Your task to perform on an android device: allow cookies in the chrome app Image 0: 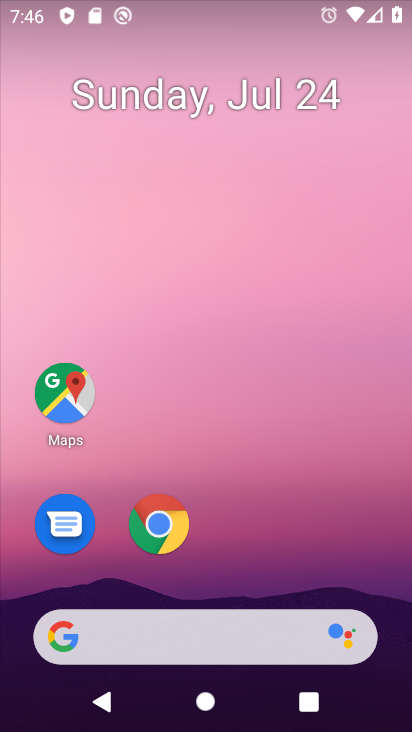
Step 0: click (157, 522)
Your task to perform on an android device: allow cookies in the chrome app Image 1: 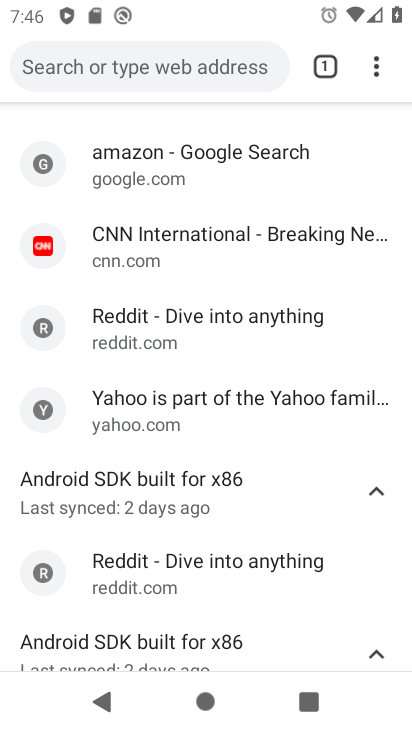
Step 1: drag from (235, 193) to (230, 572)
Your task to perform on an android device: allow cookies in the chrome app Image 2: 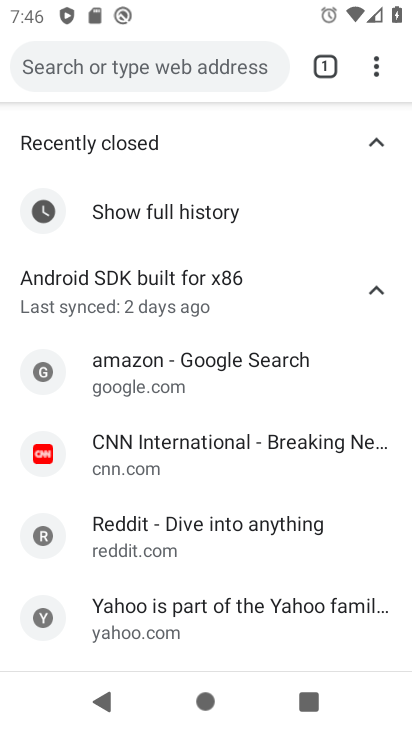
Step 2: click (375, 72)
Your task to perform on an android device: allow cookies in the chrome app Image 3: 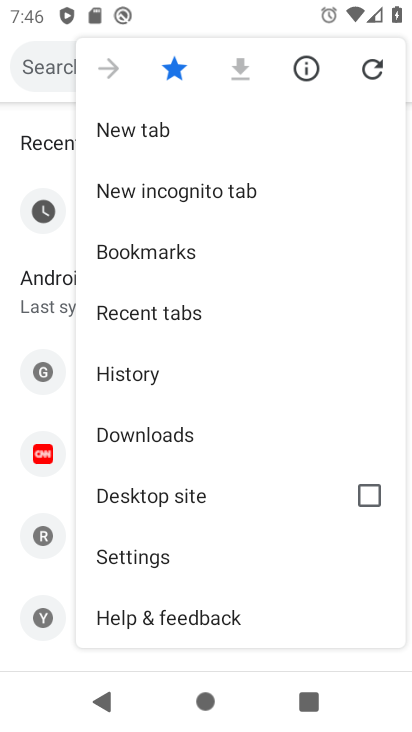
Step 3: drag from (252, 503) to (267, 268)
Your task to perform on an android device: allow cookies in the chrome app Image 4: 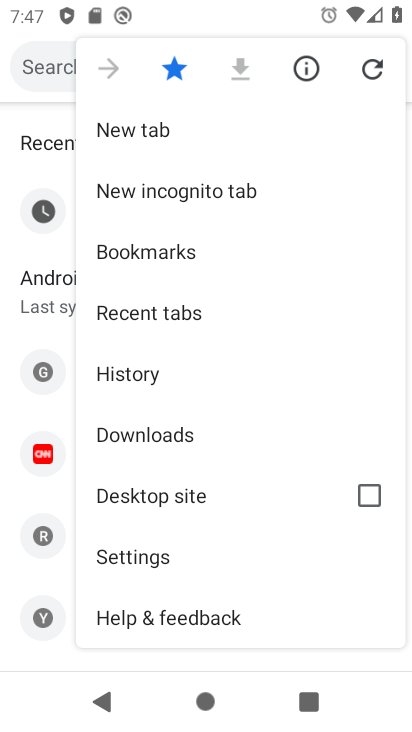
Step 4: click (148, 549)
Your task to perform on an android device: allow cookies in the chrome app Image 5: 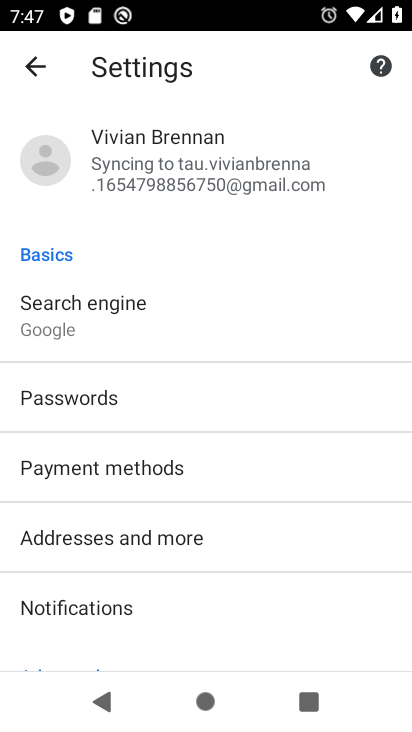
Step 5: drag from (221, 494) to (284, 167)
Your task to perform on an android device: allow cookies in the chrome app Image 6: 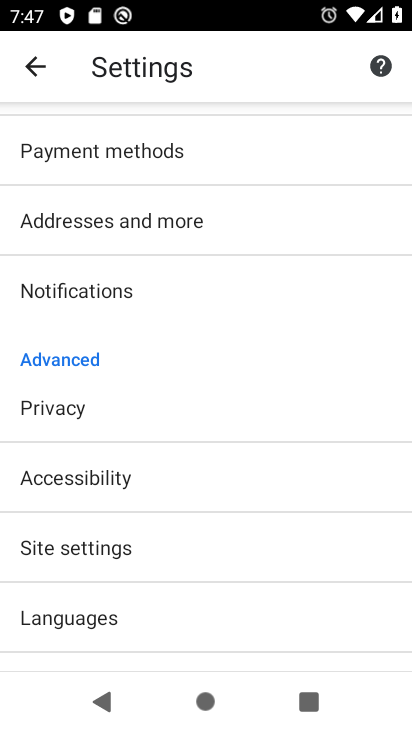
Step 6: click (104, 544)
Your task to perform on an android device: allow cookies in the chrome app Image 7: 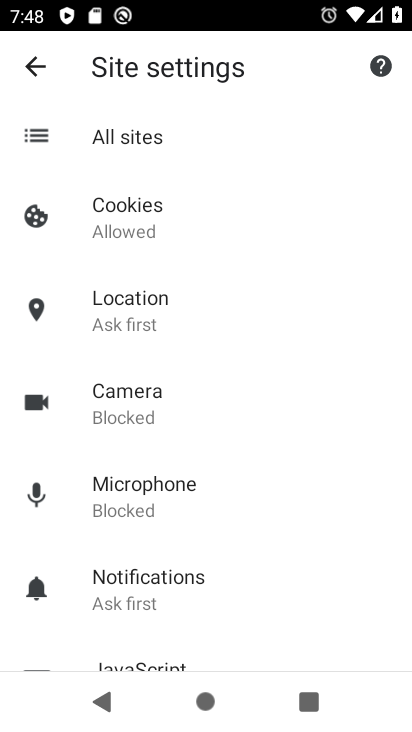
Step 7: click (193, 202)
Your task to perform on an android device: allow cookies in the chrome app Image 8: 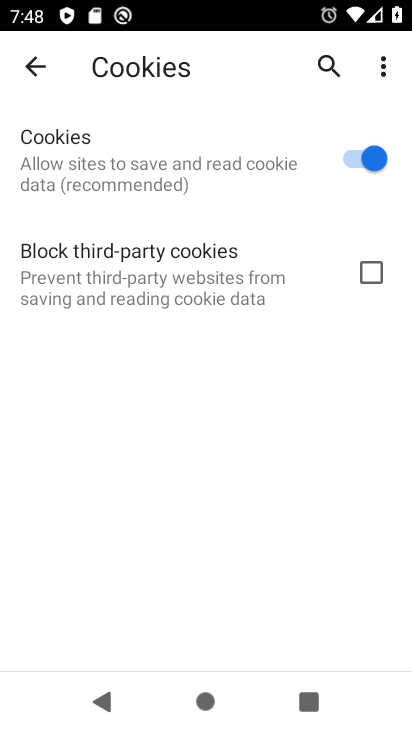
Step 8: task complete